Your task to perform on an android device: Open Youtube and go to "Your channel" Image 0: 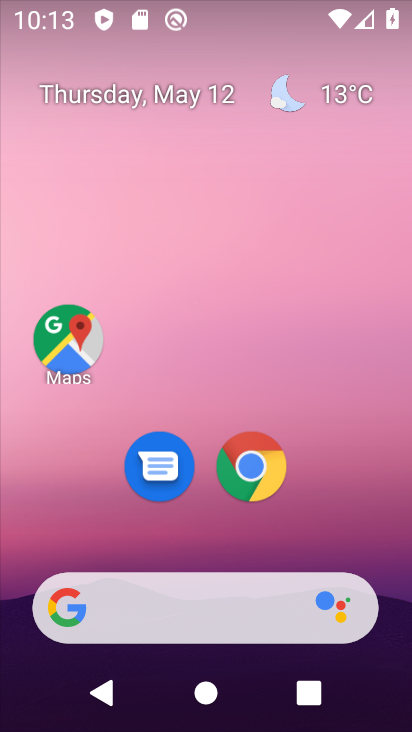
Step 0: drag from (180, 563) to (296, 2)
Your task to perform on an android device: Open Youtube and go to "Your channel" Image 1: 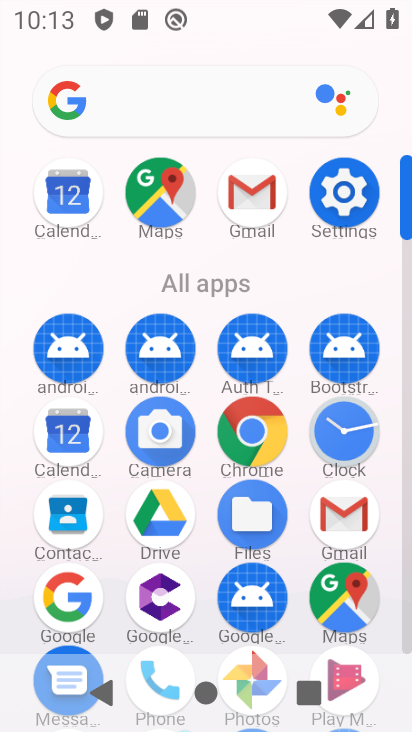
Step 1: drag from (201, 585) to (275, 118)
Your task to perform on an android device: Open Youtube and go to "Your channel" Image 2: 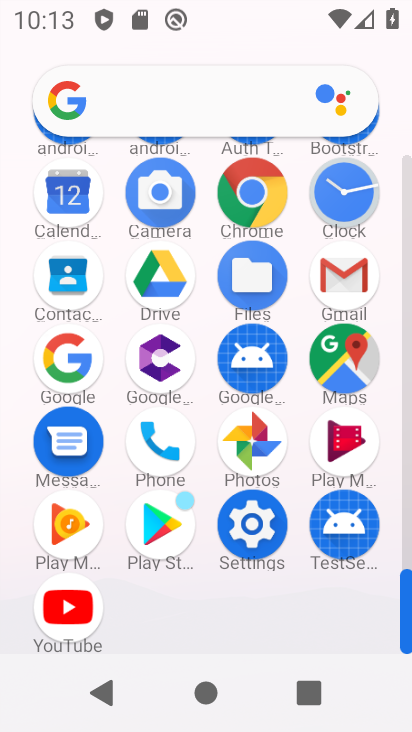
Step 2: click (62, 619)
Your task to perform on an android device: Open Youtube and go to "Your channel" Image 3: 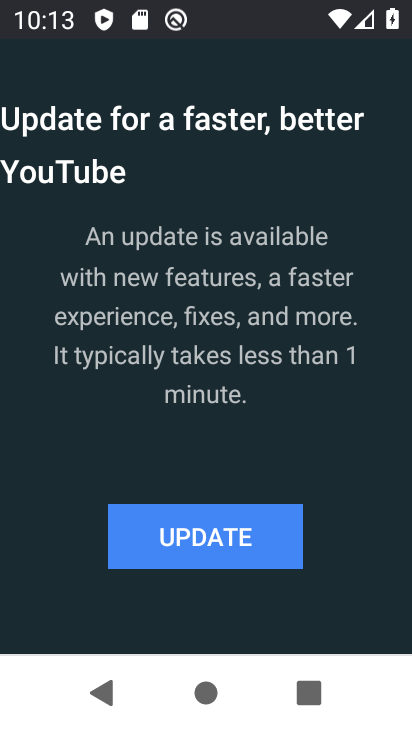
Step 3: click (195, 537)
Your task to perform on an android device: Open Youtube and go to "Your channel" Image 4: 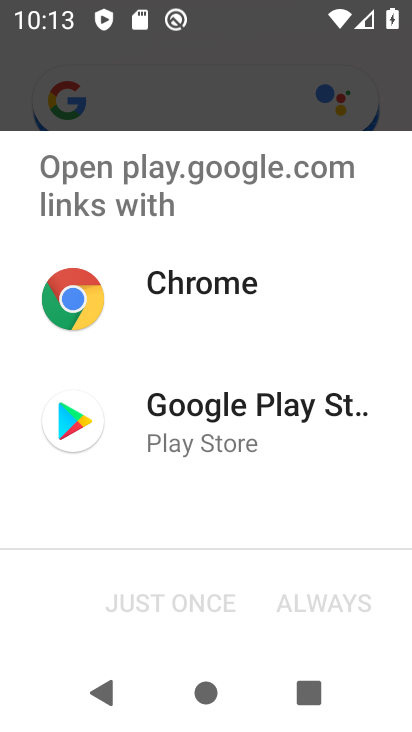
Step 4: click (176, 436)
Your task to perform on an android device: Open Youtube and go to "Your channel" Image 5: 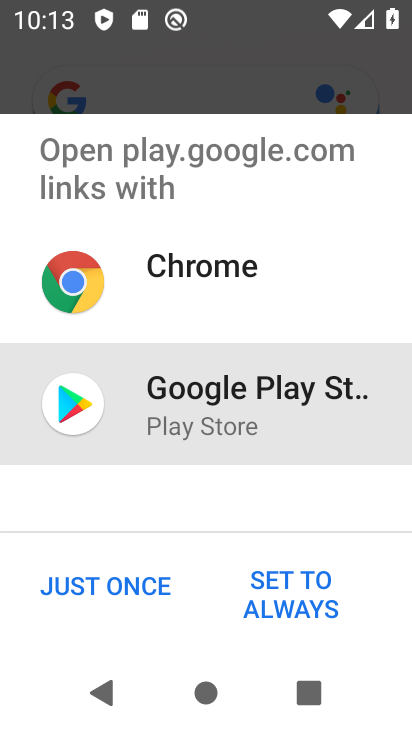
Step 5: click (94, 586)
Your task to perform on an android device: Open Youtube and go to "Your channel" Image 6: 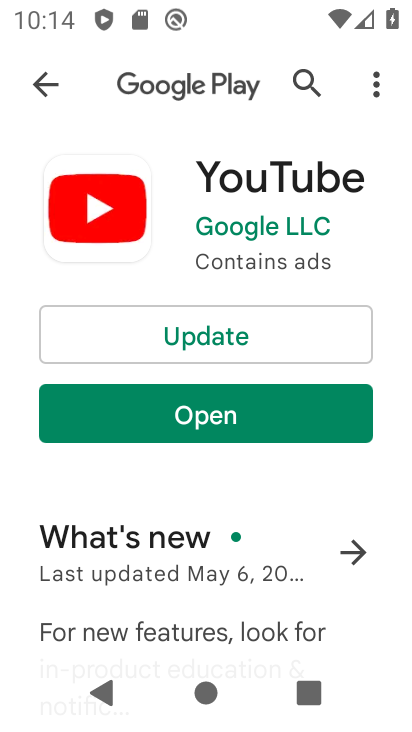
Step 6: click (191, 320)
Your task to perform on an android device: Open Youtube and go to "Your channel" Image 7: 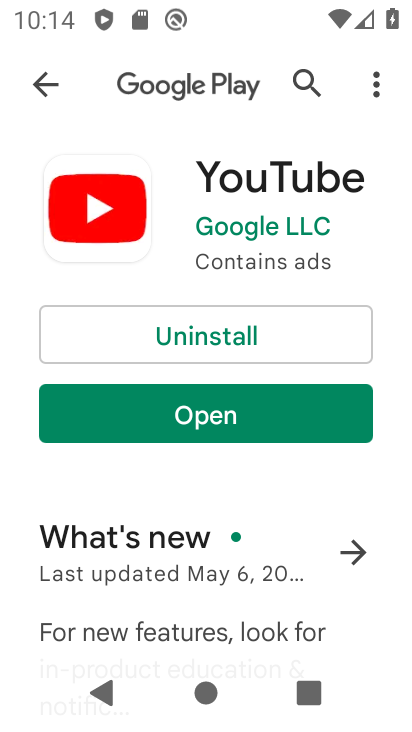
Step 7: click (210, 420)
Your task to perform on an android device: Open Youtube and go to "Your channel" Image 8: 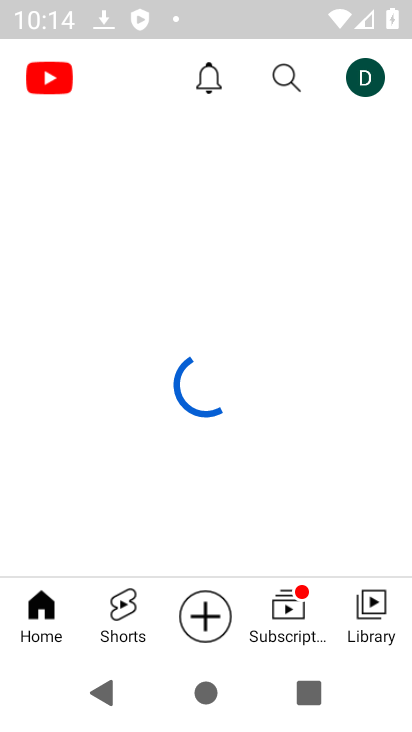
Step 8: click (359, 73)
Your task to perform on an android device: Open Youtube and go to "Your channel" Image 9: 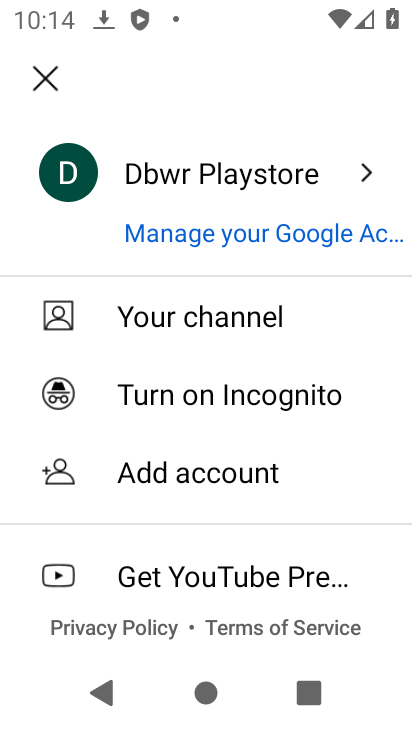
Step 9: click (174, 177)
Your task to perform on an android device: Open Youtube and go to "Your channel" Image 10: 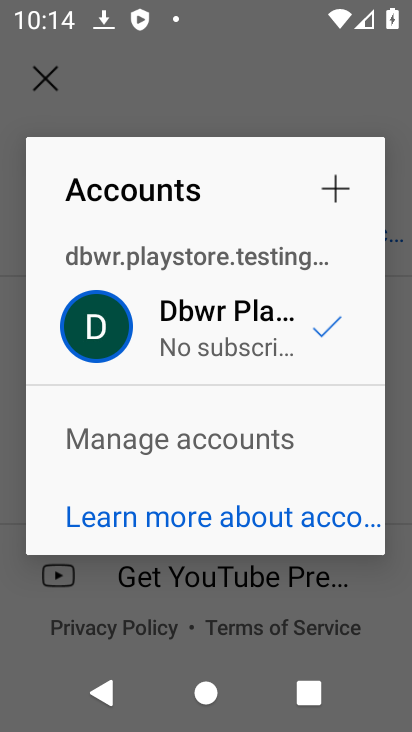
Step 10: task complete